Your task to perform on an android device: turn off wifi Image 0: 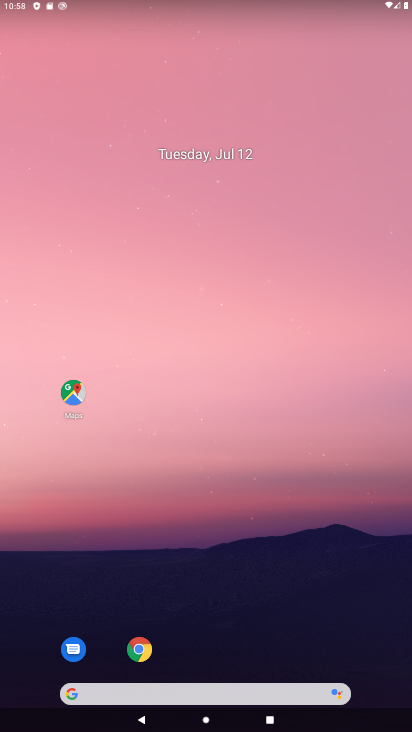
Step 0: drag from (390, 667) to (313, 172)
Your task to perform on an android device: turn off wifi Image 1: 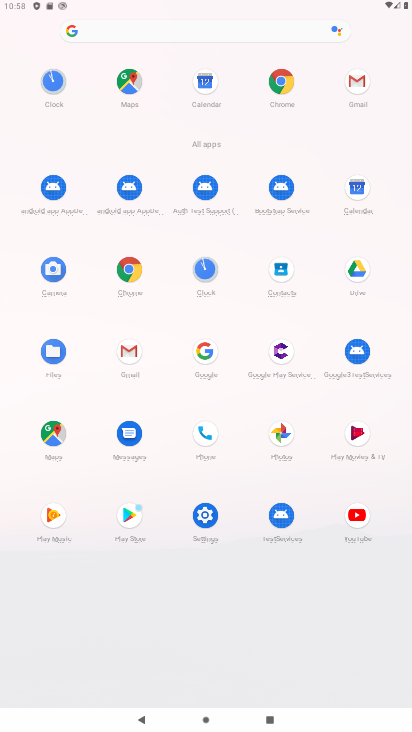
Step 1: drag from (292, 1) to (206, 456)
Your task to perform on an android device: turn off wifi Image 2: 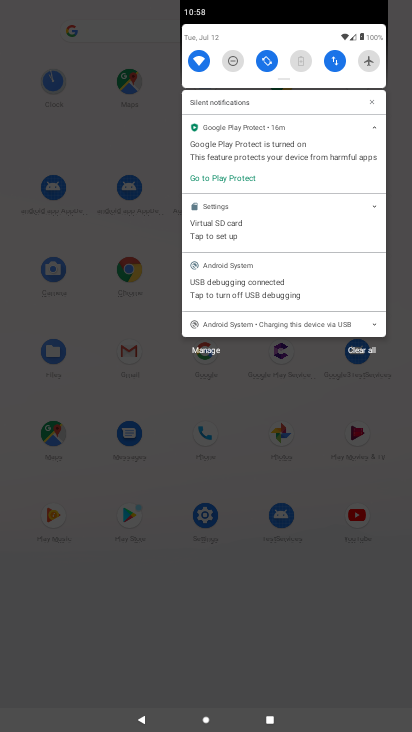
Step 2: drag from (275, 77) to (379, 439)
Your task to perform on an android device: turn off wifi Image 3: 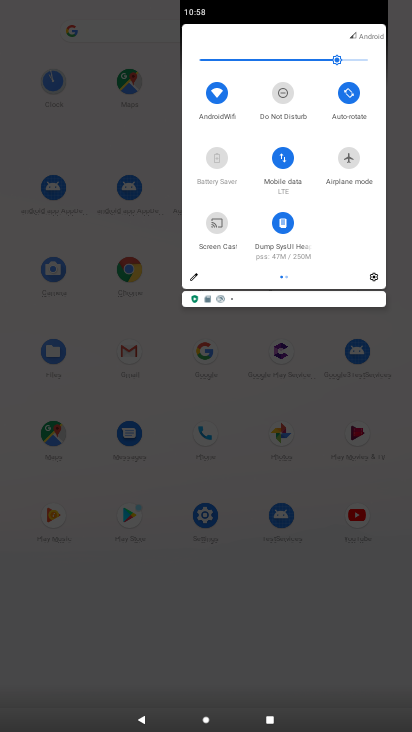
Step 3: click (214, 91)
Your task to perform on an android device: turn off wifi Image 4: 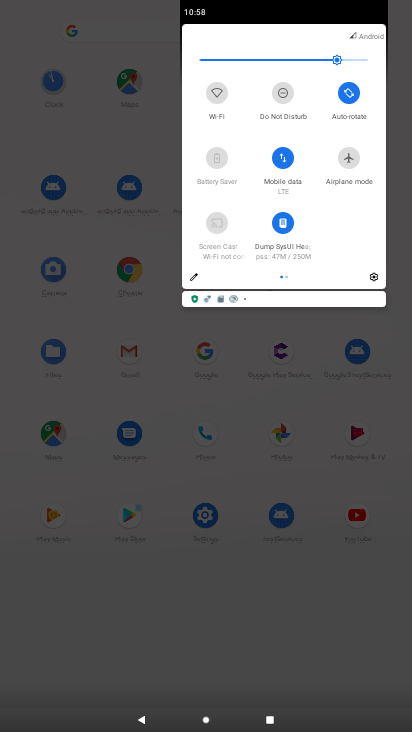
Step 4: task complete